Your task to perform on an android device: open a new tab in the chrome app Image 0: 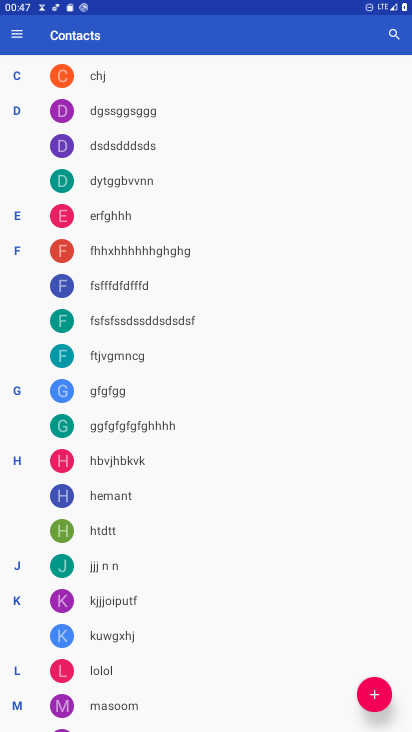
Step 0: press home button
Your task to perform on an android device: open a new tab in the chrome app Image 1: 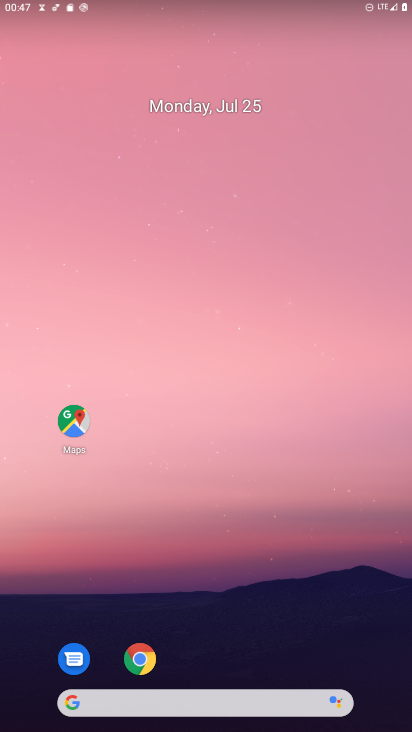
Step 1: click (149, 657)
Your task to perform on an android device: open a new tab in the chrome app Image 2: 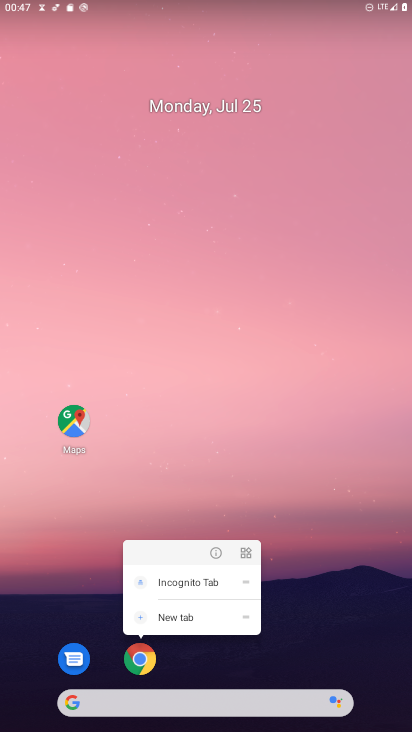
Step 2: click (144, 661)
Your task to perform on an android device: open a new tab in the chrome app Image 3: 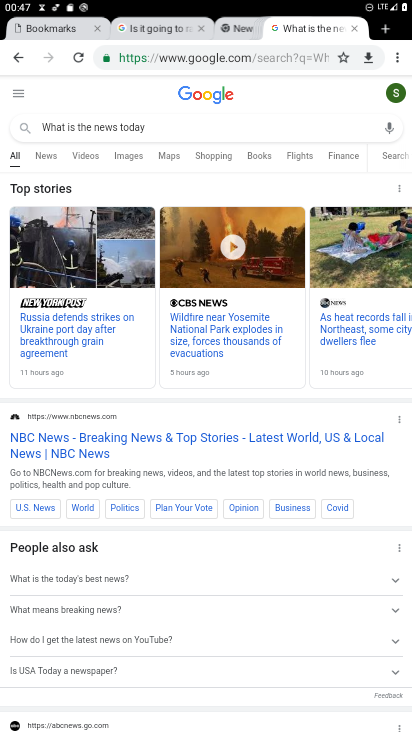
Step 3: click (407, 59)
Your task to perform on an android device: open a new tab in the chrome app Image 4: 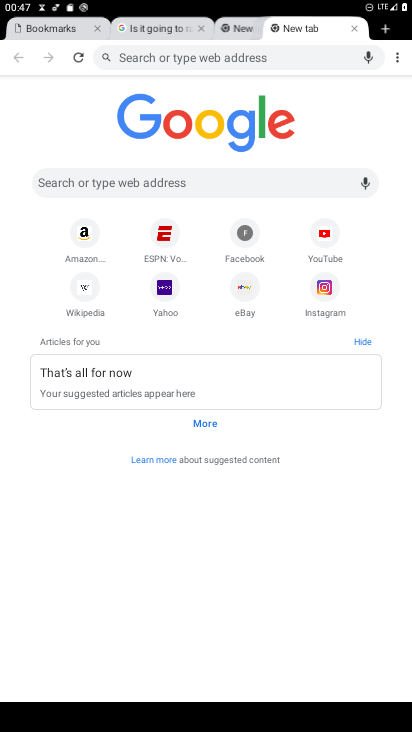
Step 4: click (390, 21)
Your task to perform on an android device: open a new tab in the chrome app Image 5: 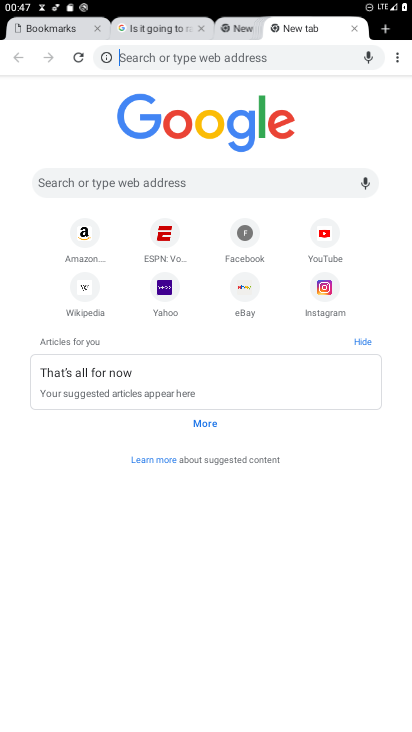
Step 5: task complete